Your task to perform on an android device: move a message to another label in the gmail app Image 0: 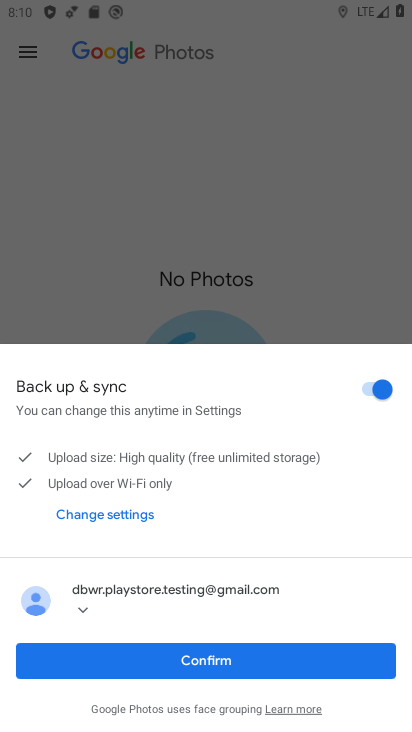
Step 0: press home button
Your task to perform on an android device: move a message to another label in the gmail app Image 1: 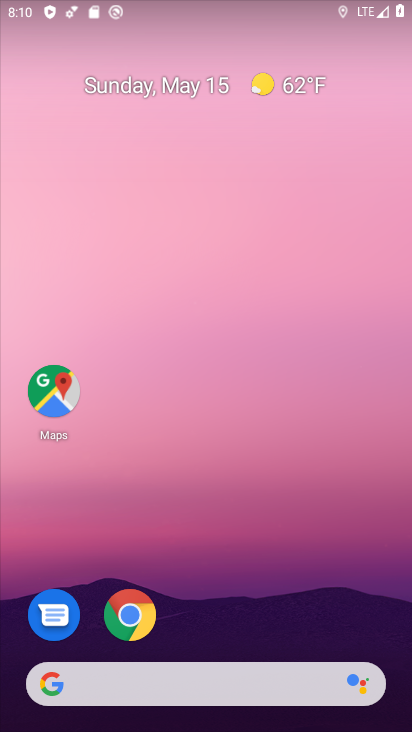
Step 1: drag from (209, 554) to (295, 34)
Your task to perform on an android device: move a message to another label in the gmail app Image 2: 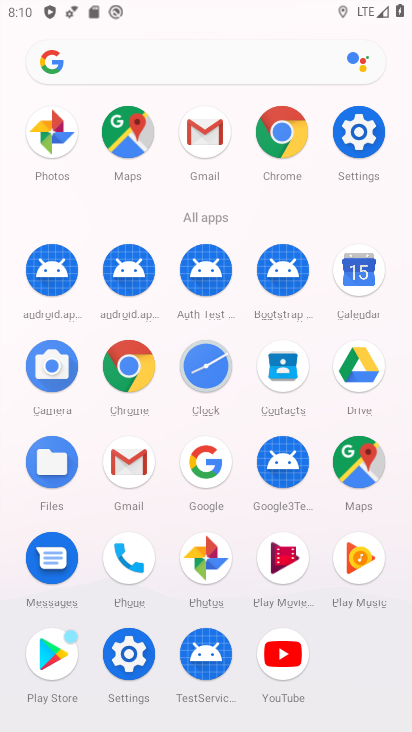
Step 2: click (207, 161)
Your task to perform on an android device: move a message to another label in the gmail app Image 3: 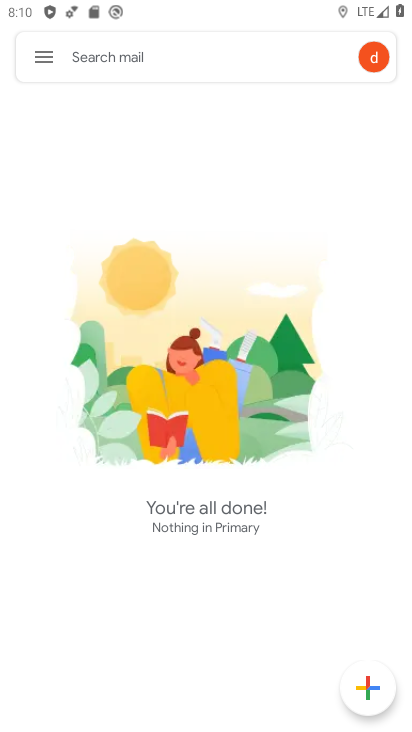
Step 3: task complete